Your task to perform on an android device: set an alarm Image 0: 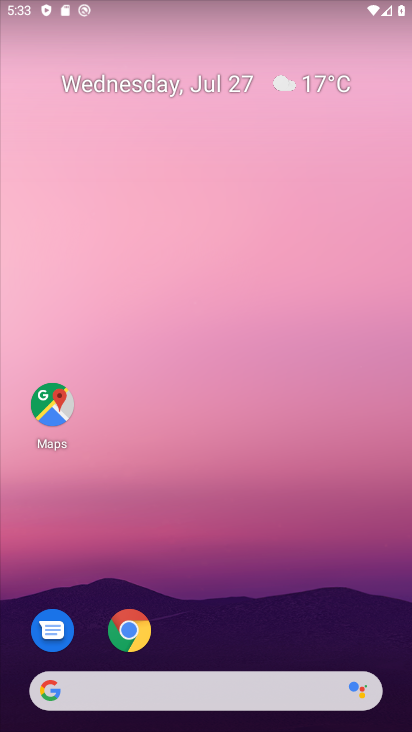
Step 0: press home button
Your task to perform on an android device: set an alarm Image 1: 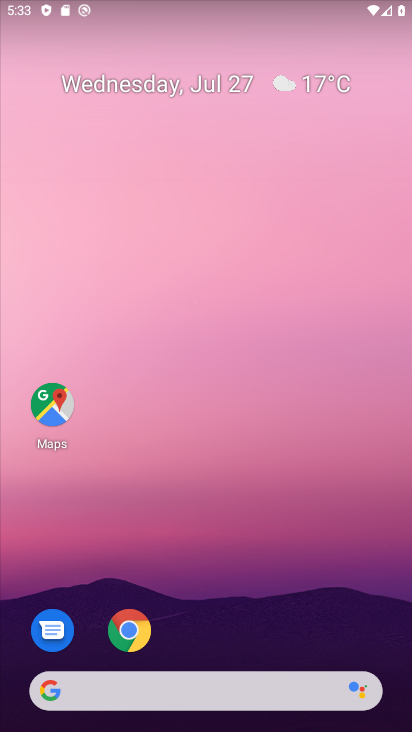
Step 1: drag from (226, 645) to (247, 57)
Your task to perform on an android device: set an alarm Image 2: 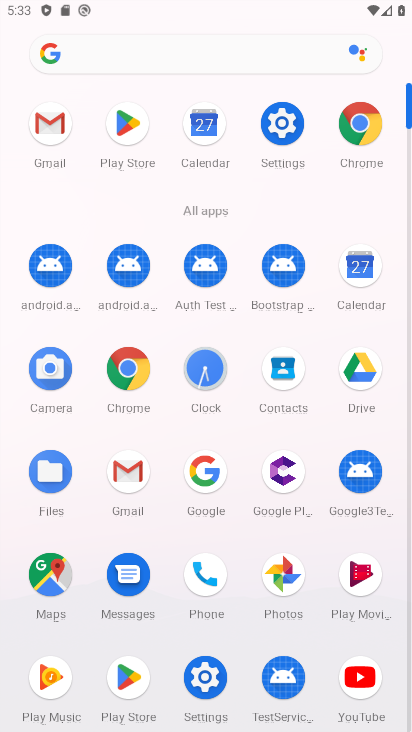
Step 2: click (204, 359)
Your task to perform on an android device: set an alarm Image 3: 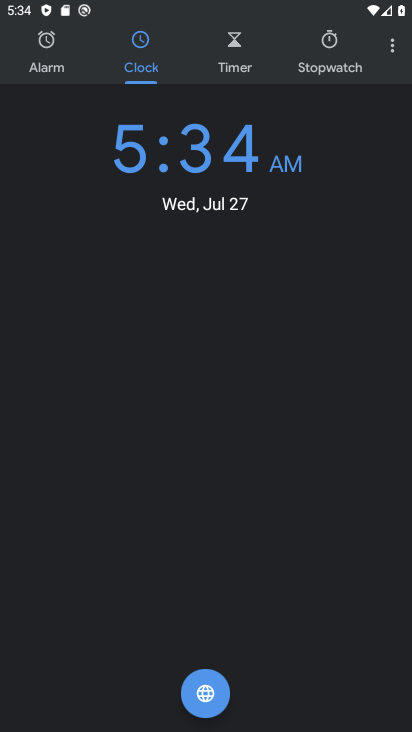
Step 3: click (37, 52)
Your task to perform on an android device: set an alarm Image 4: 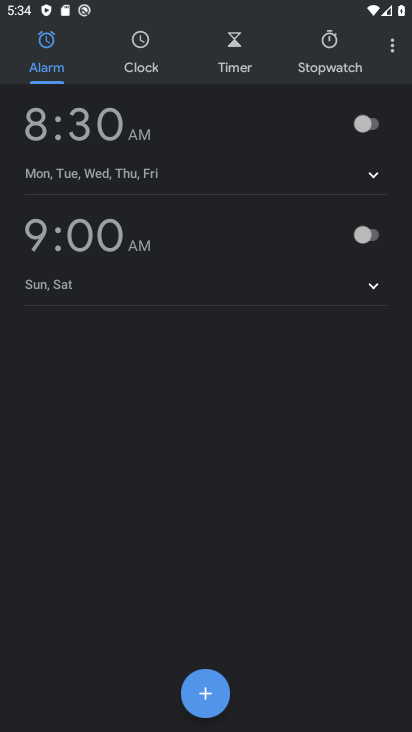
Step 4: click (367, 120)
Your task to perform on an android device: set an alarm Image 5: 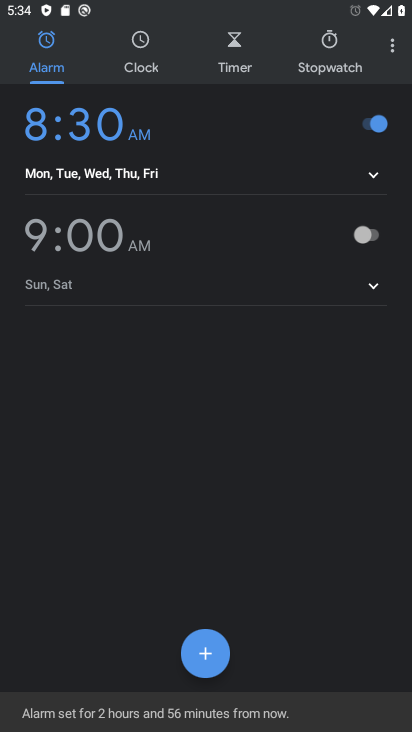
Step 5: click (371, 231)
Your task to perform on an android device: set an alarm Image 6: 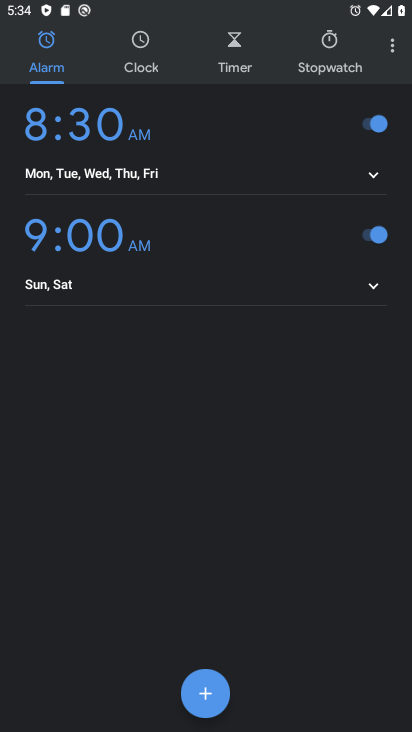
Step 6: task complete